Your task to perform on an android device: Open sound settings Image 0: 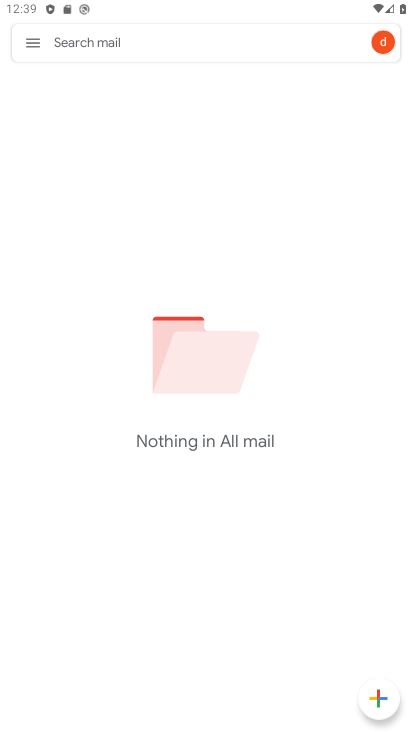
Step 0: press home button
Your task to perform on an android device: Open sound settings Image 1: 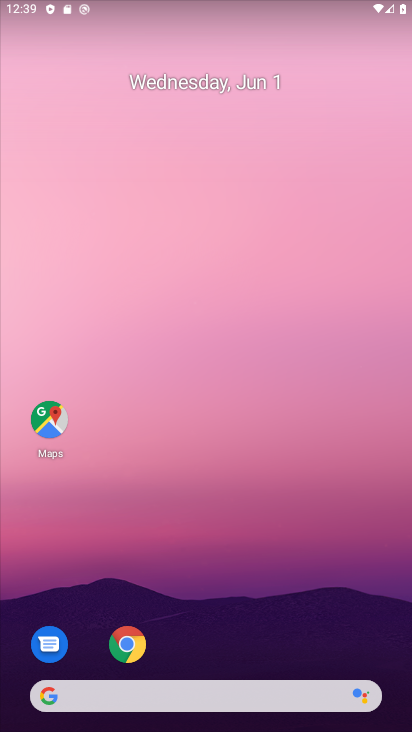
Step 1: drag from (285, 623) to (313, 0)
Your task to perform on an android device: Open sound settings Image 2: 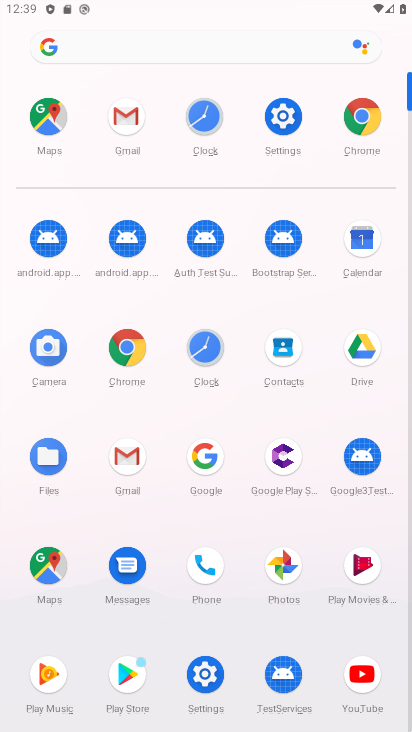
Step 2: click (198, 693)
Your task to perform on an android device: Open sound settings Image 3: 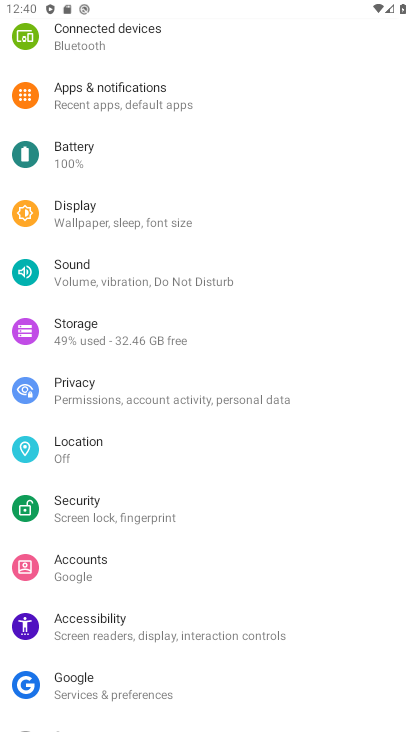
Step 3: click (153, 272)
Your task to perform on an android device: Open sound settings Image 4: 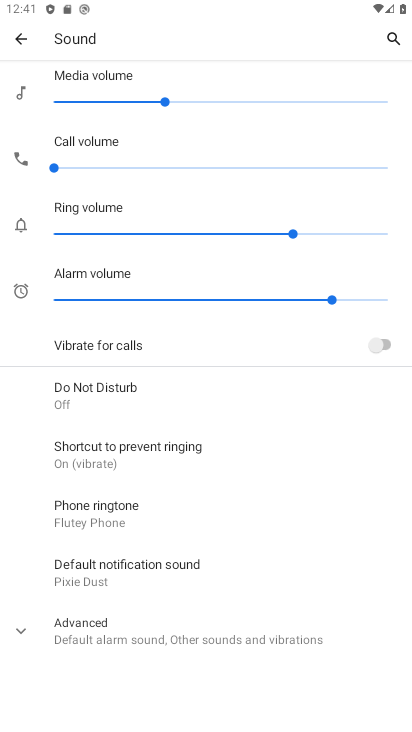
Step 4: task complete